Your task to perform on an android device: set default search engine in the chrome app Image 0: 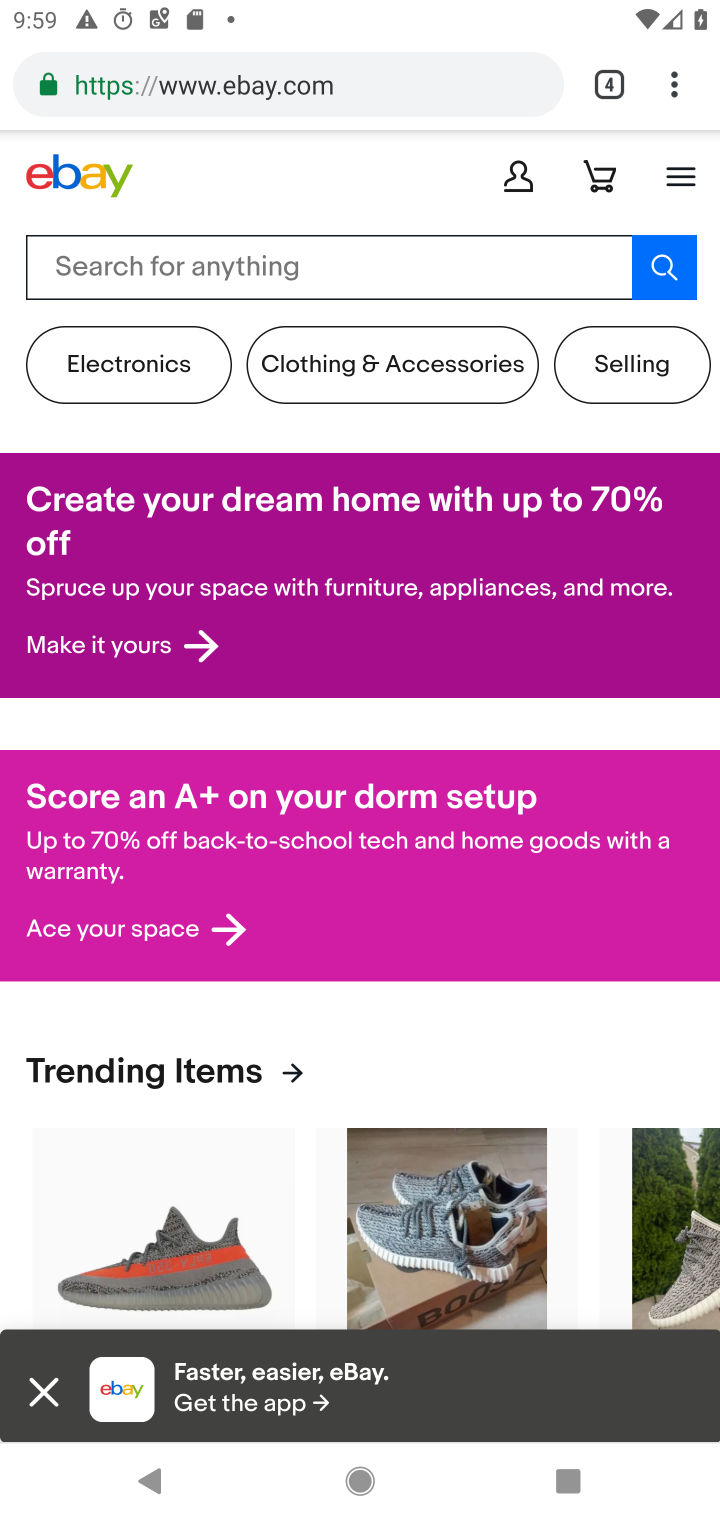
Step 0: click (677, 84)
Your task to perform on an android device: set default search engine in the chrome app Image 1: 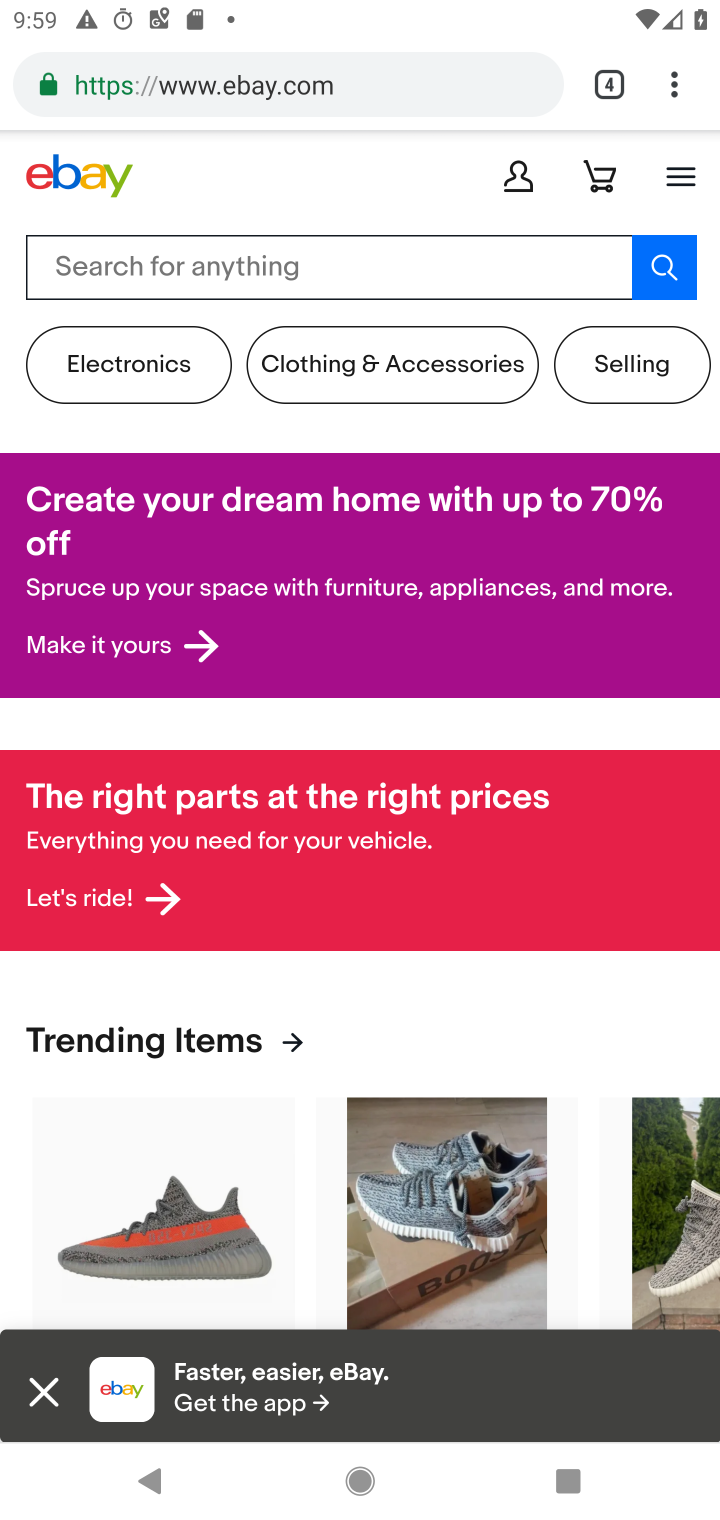
Step 1: click (671, 82)
Your task to perform on an android device: set default search engine in the chrome app Image 2: 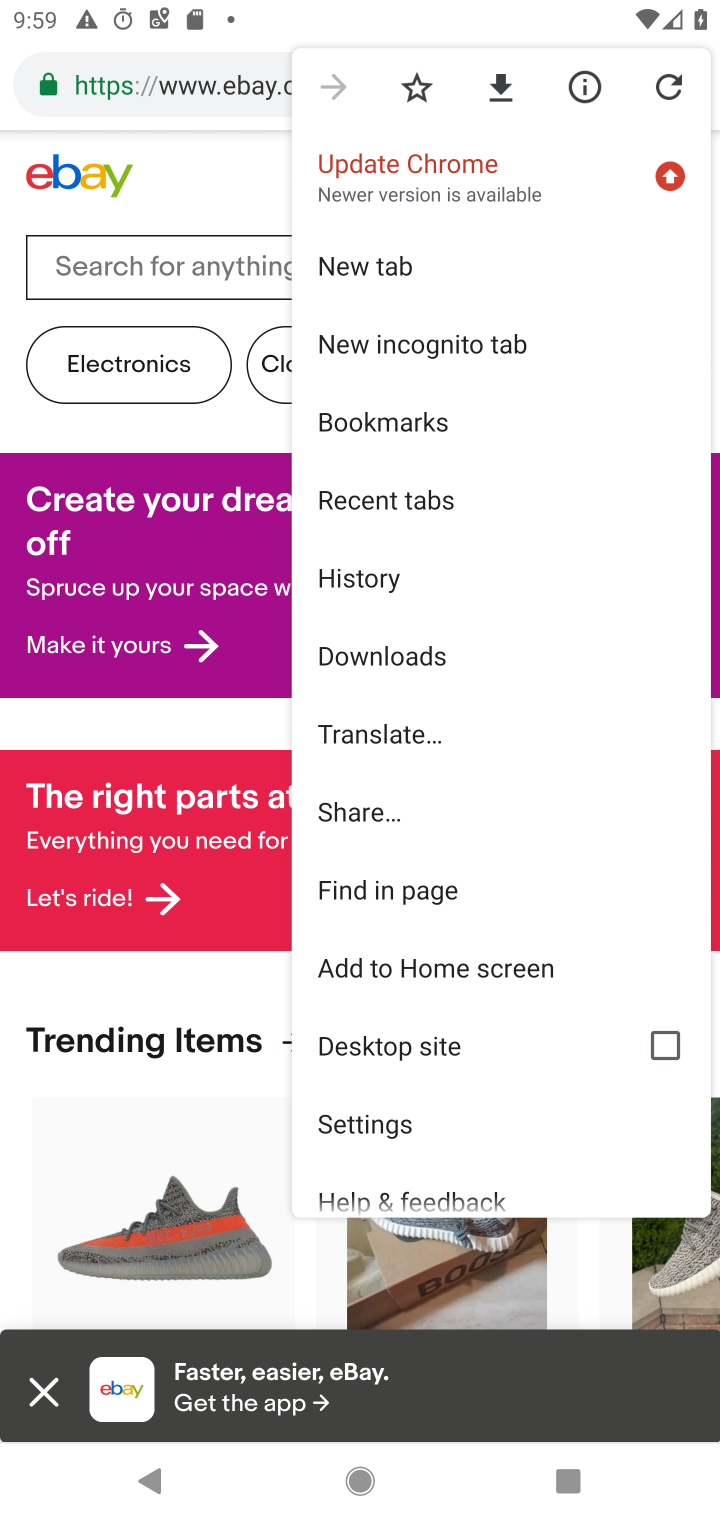
Step 2: click (371, 1117)
Your task to perform on an android device: set default search engine in the chrome app Image 3: 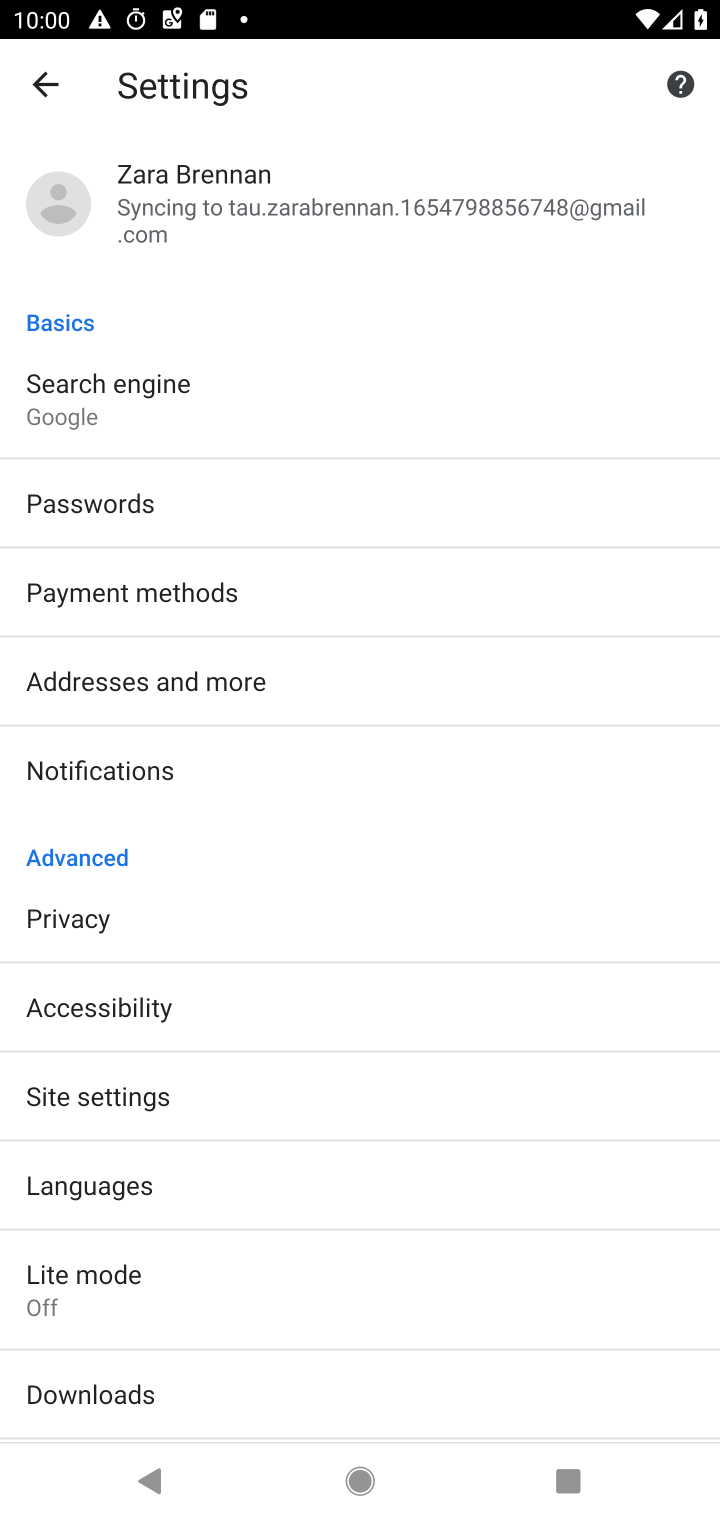
Step 3: click (155, 401)
Your task to perform on an android device: set default search engine in the chrome app Image 4: 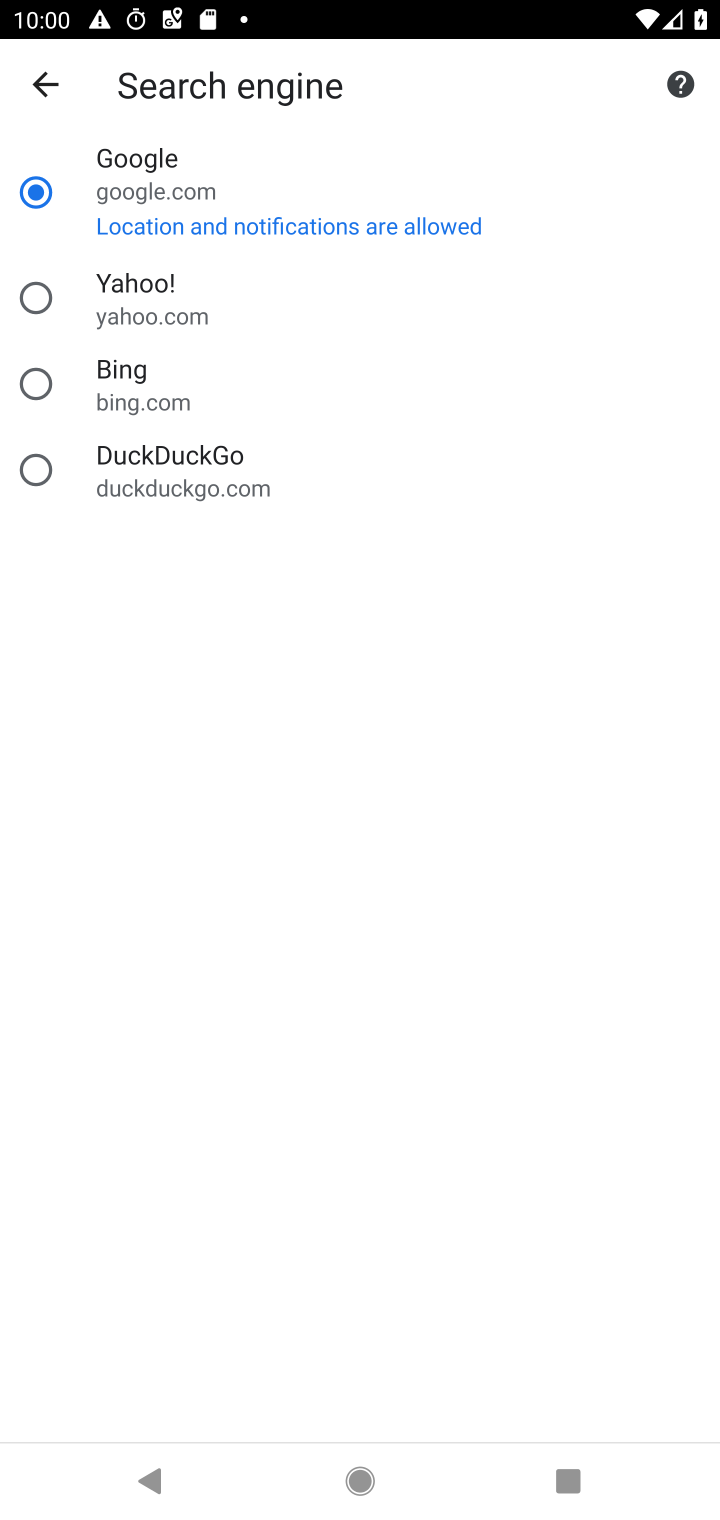
Step 4: task complete